Your task to perform on an android device: toggle translation in the chrome app Image 0: 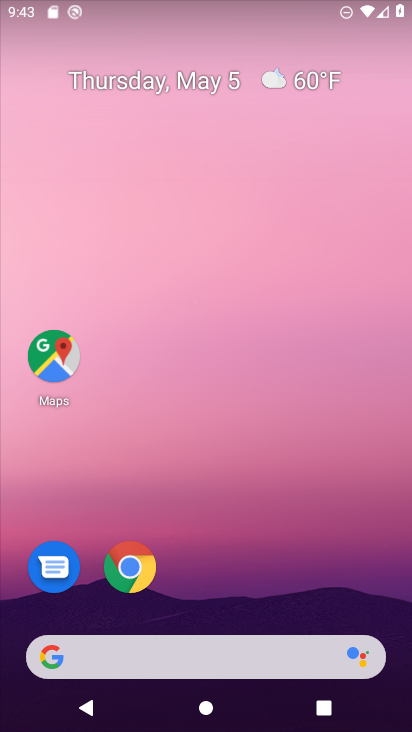
Step 0: click (123, 566)
Your task to perform on an android device: toggle translation in the chrome app Image 1: 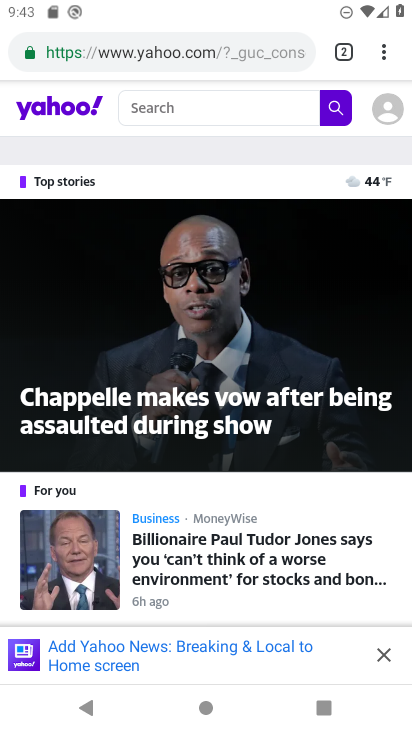
Step 1: drag from (385, 52) to (232, 573)
Your task to perform on an android device: toggle translation in the chrome app Image 2: 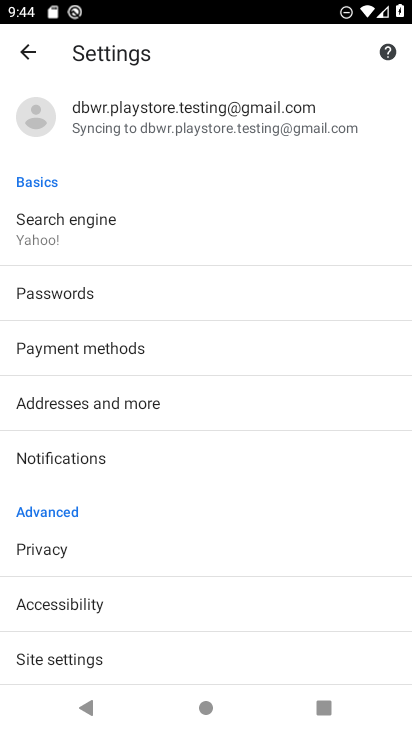
Step 2: drag from (111, 637) to (115, 465)
Your task to perform on an android device: toggle translation in the chrome app Image 3: 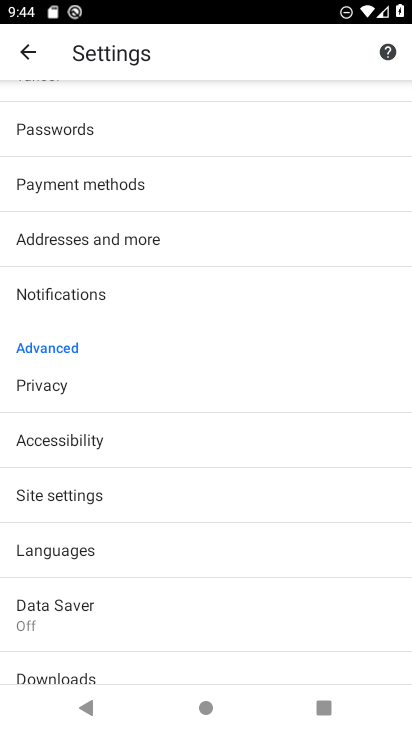
Step 3: click (70, 547)
Your task to perform on an android device: toggle translation in the chrome app Image 4: 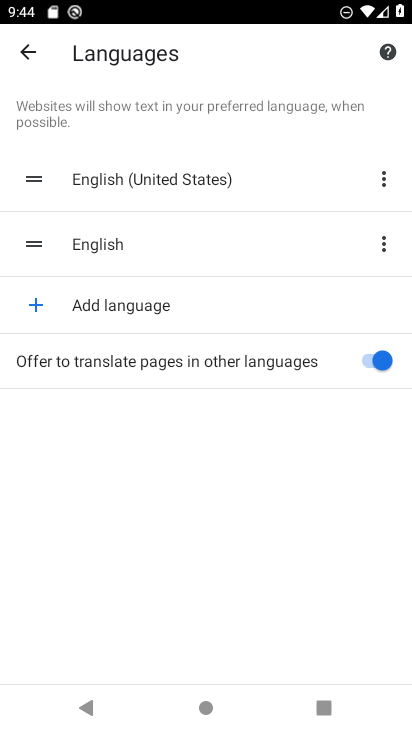
Step 4: click (363, 360)
Your task to perform on an android device: toggle translation in the chrome app Image 5: 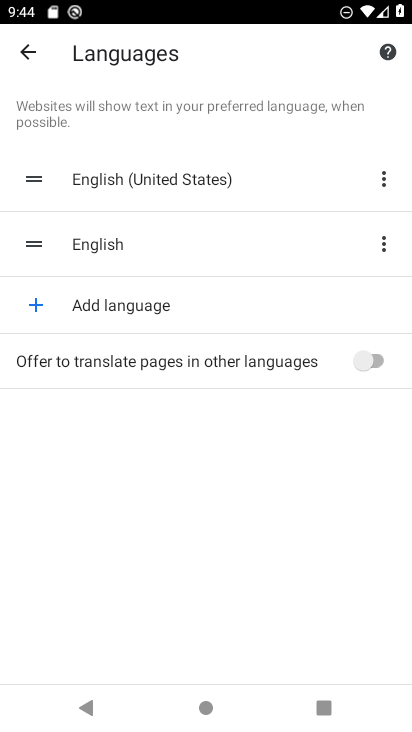
Step 5: task complete